Your task to perform on an android device: Open Chrome and go to settings Image 0: 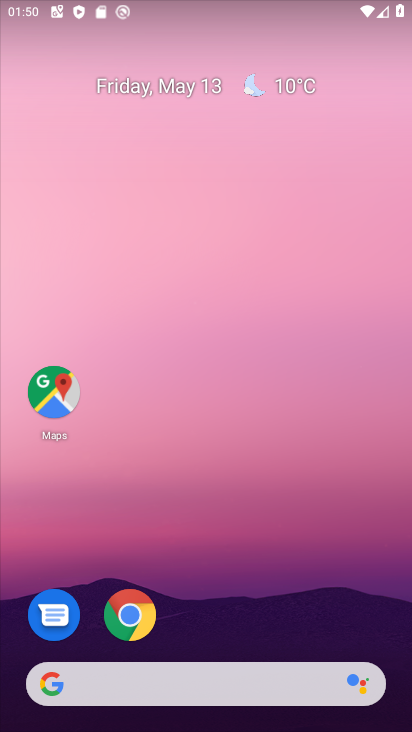
Step 0: click (145, 618)
Your task to perform on an android device: Open Chrome and go to settings Image 1: 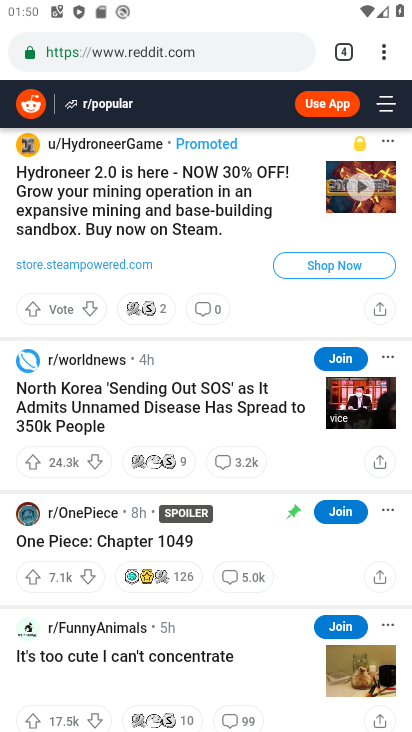
Step 1: click (385, 50)
Your task to perform on an android device: Open Chrome and go to settings Image 2: 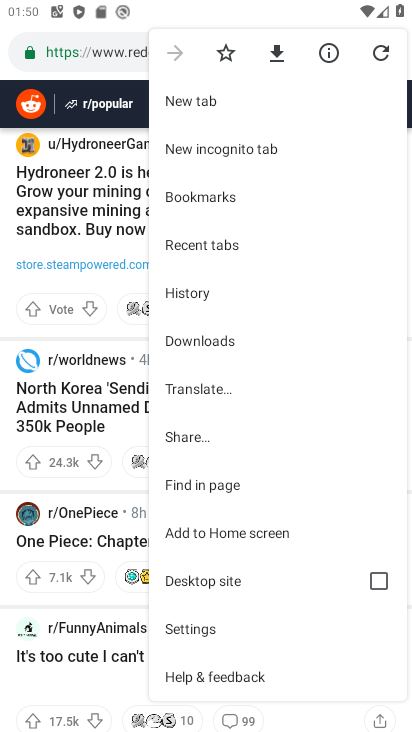
Step 2: click (197, 629)
Your task to perform on an android device: Open Chrome and go to settings Image 3: 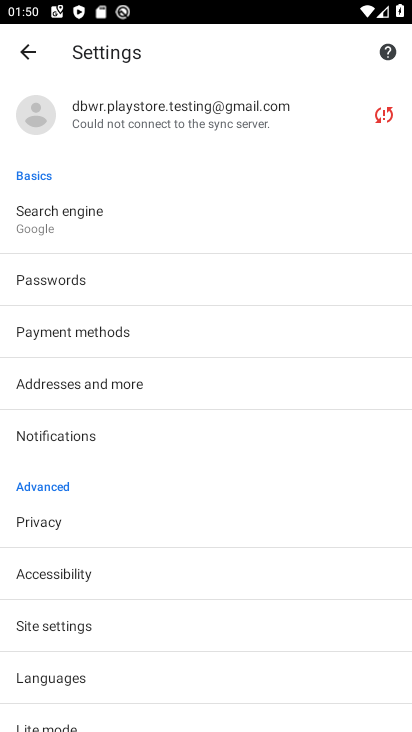
Step 3: task complete